Your task to perform on an android device: Open Chrome and go to the settings page Image 0: 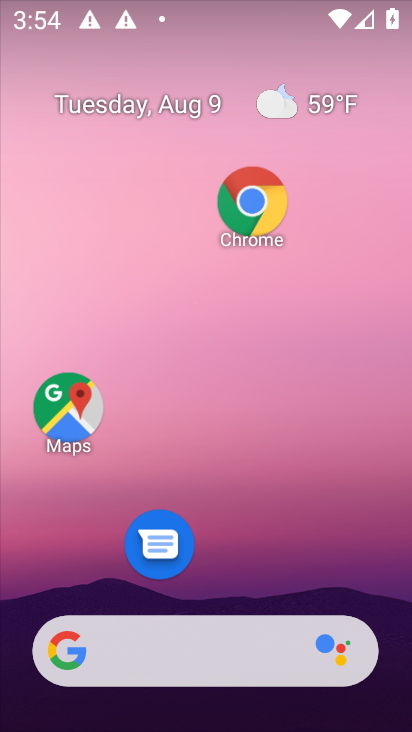
Step 0: drag from (152, 603) to (202, 207)
Your task to perform on an android device: Open Chrome and go to the settings page Image 1: 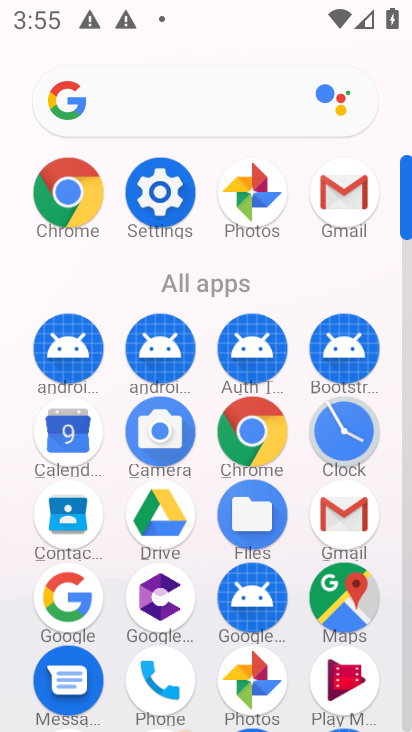
Step 1: click (245, 430)
Your task to perform on an android device: Open Chrome and go to the settings page Image 2: 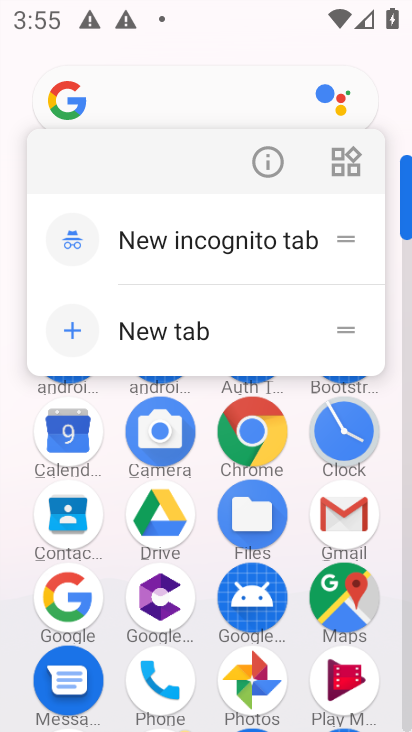
Step 2: click (245, 430)
Your task to perform on an android device: Open Chrome and go to the settings page Image 3: 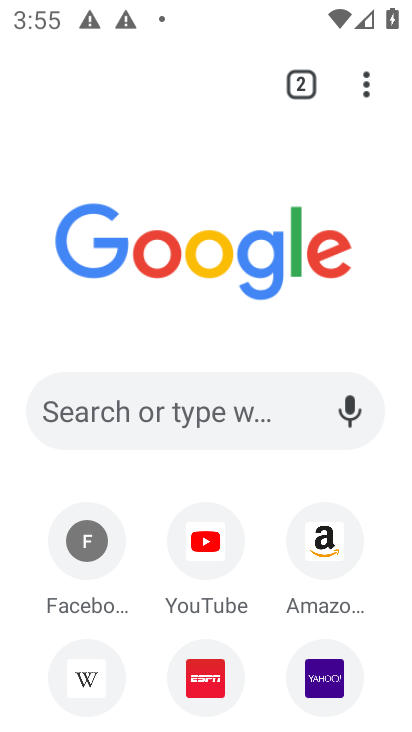
Step 3: click (369, 87)
Your task to perform on an android device: Open Chrome and go to the settings page Image 4: 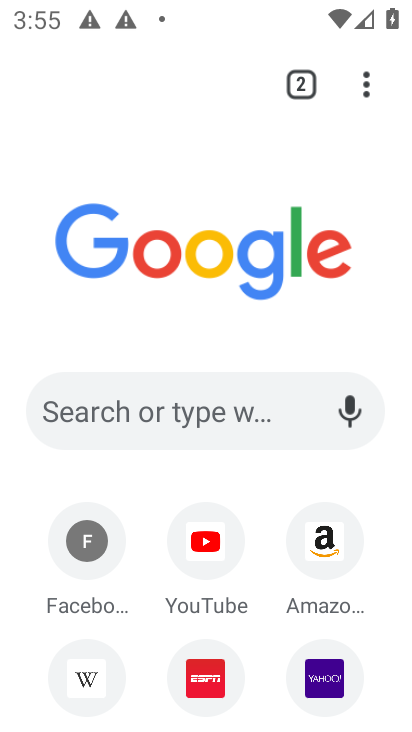
Step 4: click (364, 90)
Your task to perform on an android device: Open Chrome and go to the settings page Image 5: 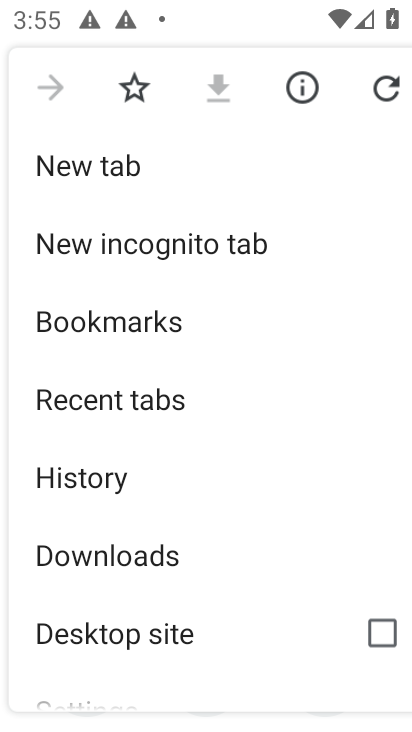
Step 5: press home button
Your task to perform on an android device: Open Chrome and go to the settings page Image 6: 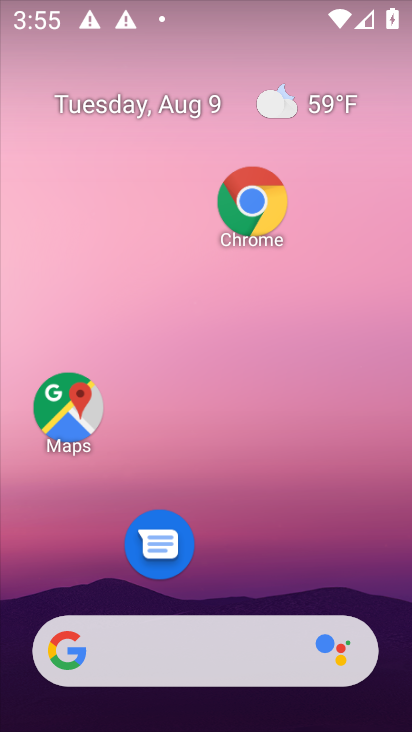
Step 6: drag from (263, 211) to (191, 211)
Your task to perform on an android device: Open Chrome and go to the settings page Image 7: 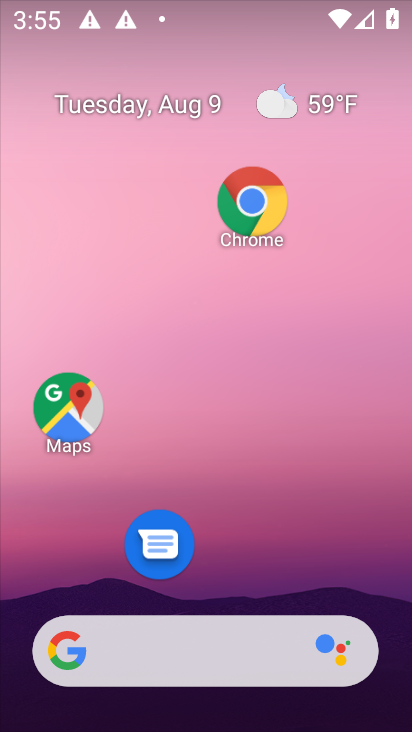
Step 7: click (261, 197)
Your task to perform on an android device: Open Chrome and go to the settings page Image 8: 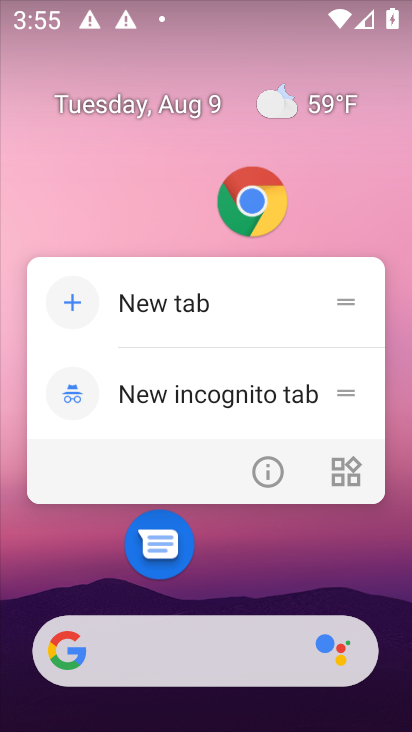
Step 8: click (245, 210)
Your task to perform on an android device: Open Chrome and go to the settings page Image 9: 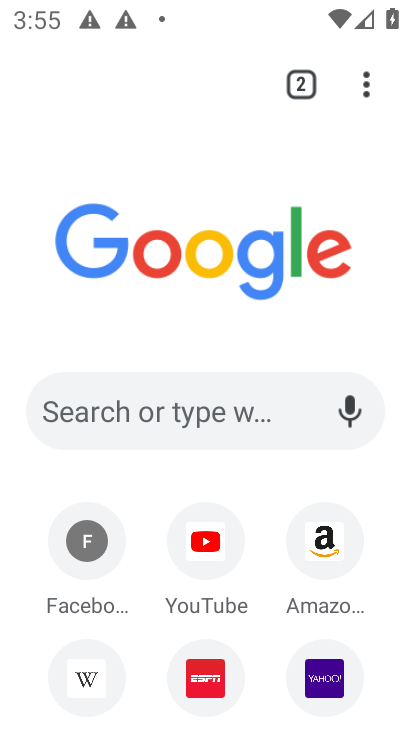
Step 9: click (369, 80)
Your task to perform on an android device: Open Chrome and go to the settings page Image 10: 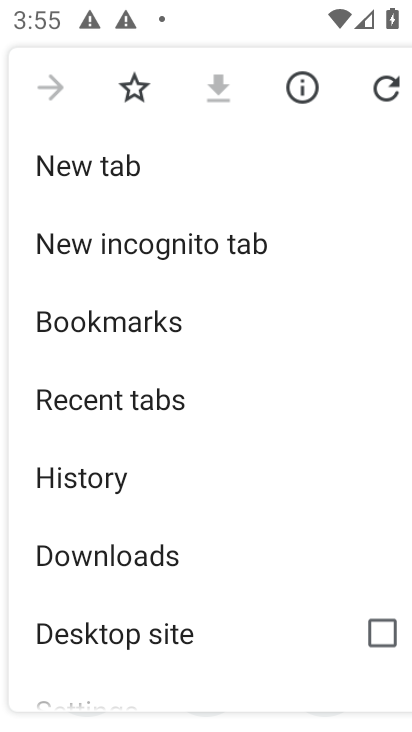
Step 10: drag from (131, 642) to (192, 287)
Your task to perform on an android device: Open Chrome and go to the settings page Image 11: 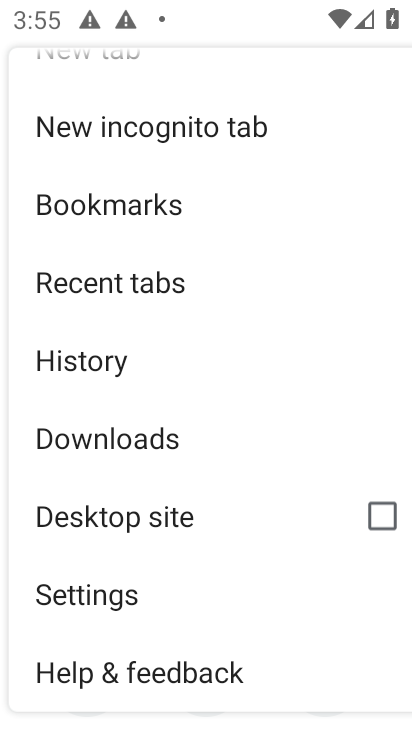
Step 11: click (124, 600)
Your task to perform on an android device: Open Chrome and go to the settings page Image 12: 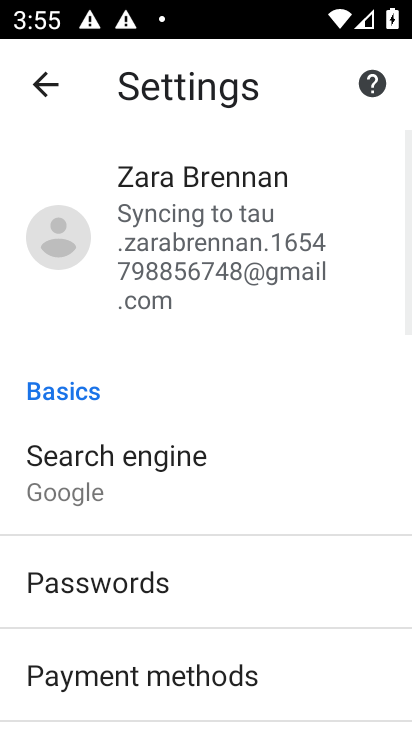
Step 12: task complete